Your task to perform on an android device: turn off wifi Image 0: 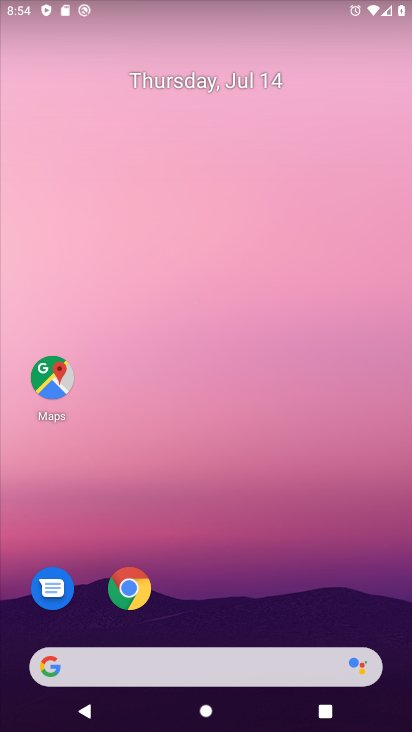
Step 0: drag from (320, 590) to (238, 42)
Your task to perform on an android device: turn off wifi Image 1: 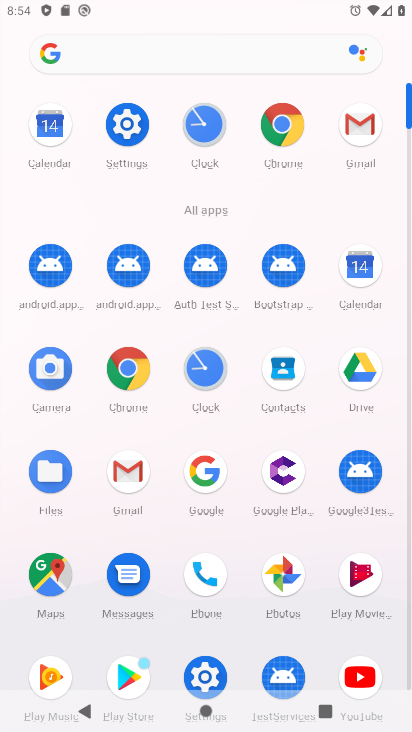
Step 1: click (121, 137)
Your task to perform on an android device: turn off wifi Image 2: 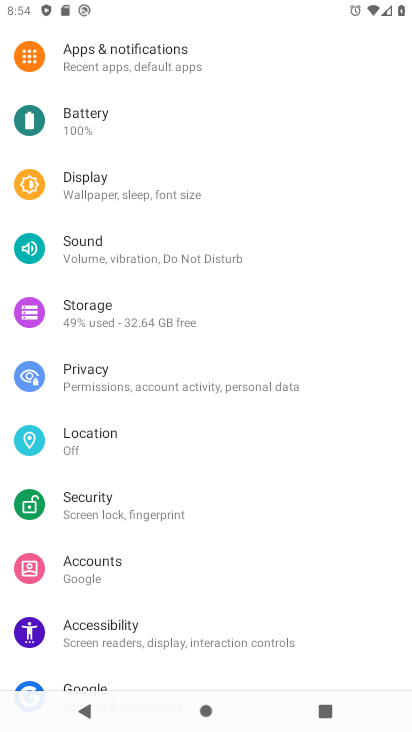
Step 2: drag from (141, 103) to (232, 602)
Your task to perform on an android device: turn off wifi Image 3: 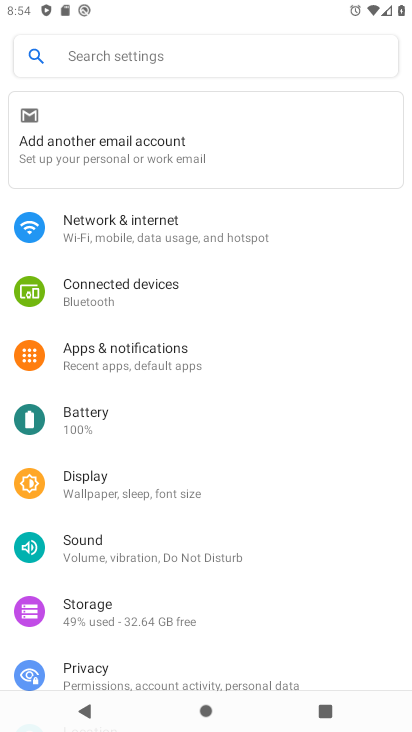
Step 3: click (130, 237)
Your task to perform on an android device: turn off wifi Image 4: 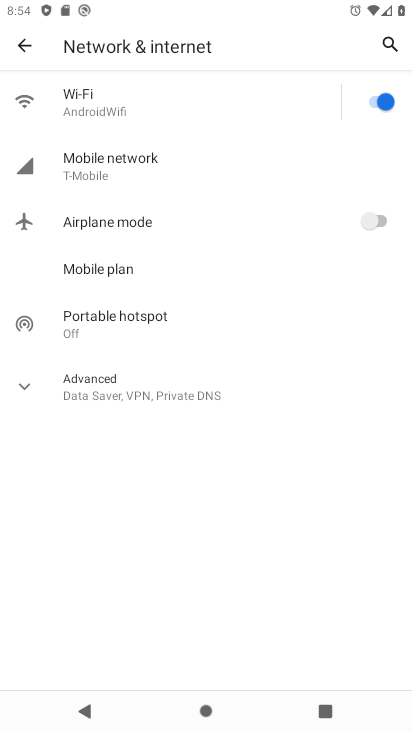
Step 4: click (379, 101)
Your task to perform on an android device: turn off wifi Image 5: 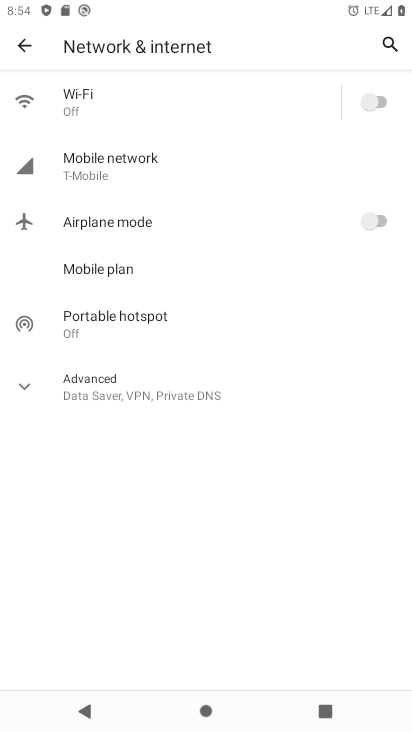
Step 5: task complete